Your task to perform on an android device: Do I have any events this weekend? Image 0: 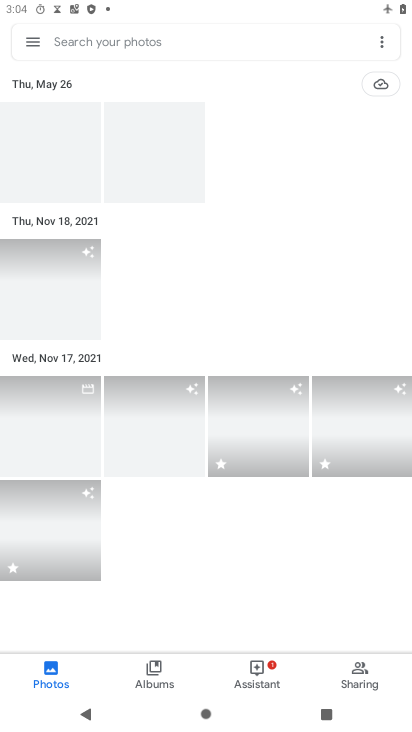
Step 0: press home button
Your task to perform on an android device: Do I have any events this weekend? Image 1: 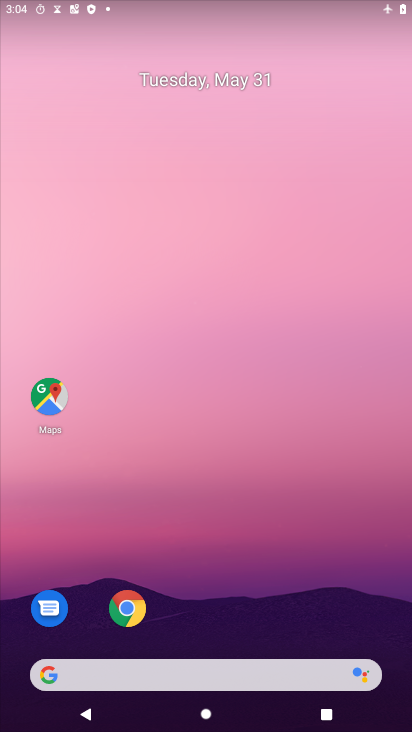
Step 1: drag from (240, 604) to (291, 183)
Your task to perform on an android device: Do I have any events this weekend? Image 2: 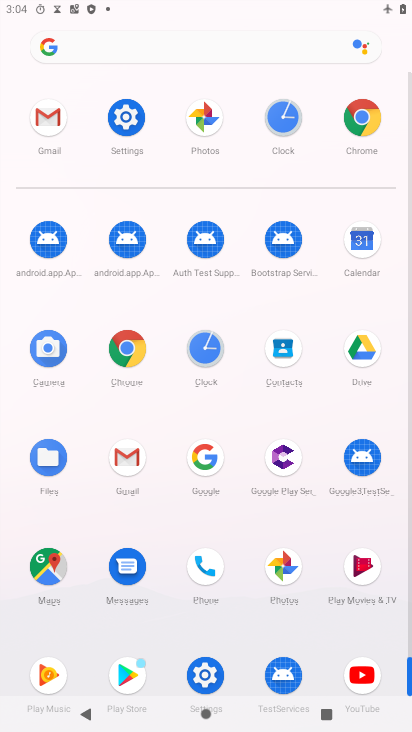
Step 2: click (368, 245)
Your task to perform on an android device: Do I have any events this weekend? Image 3: 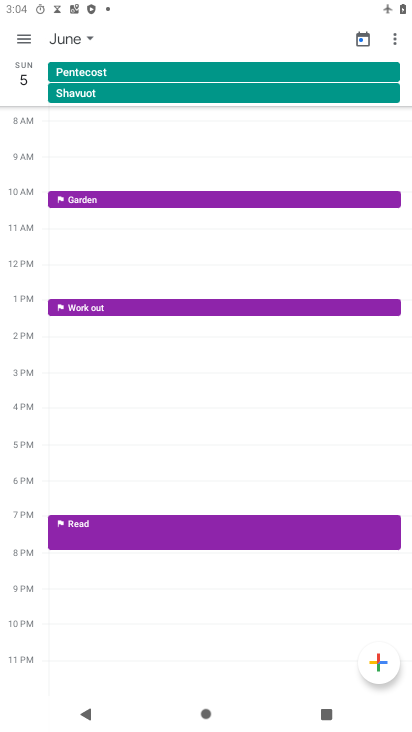
Step 3: drag from (131, 125) to (145, 244)
Your task to perform on an android device: Do I have any events this weekend? Image 4: 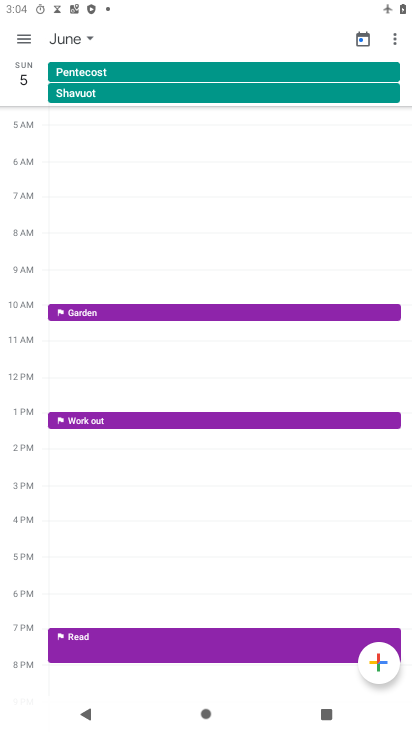
Step 4: drag from (171, 127) to (167, 628)
Your task to perform on an android device: Do I have any events this weekend? Image 5: 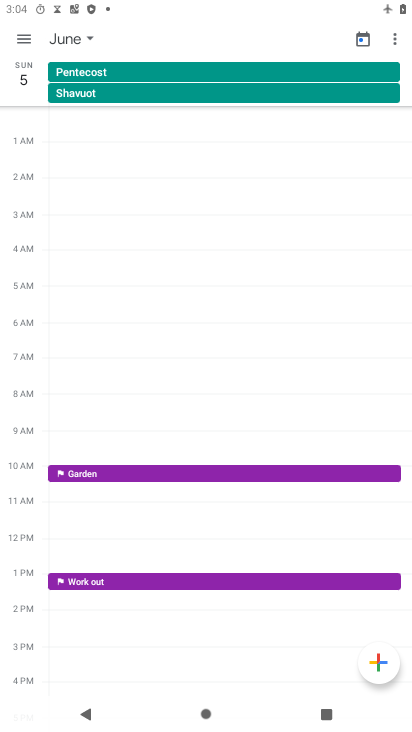
Step 5: drag from (210, 236) to (189, 718)
Your task to perform on an android device: Do I have any events this weekend? Image 6: 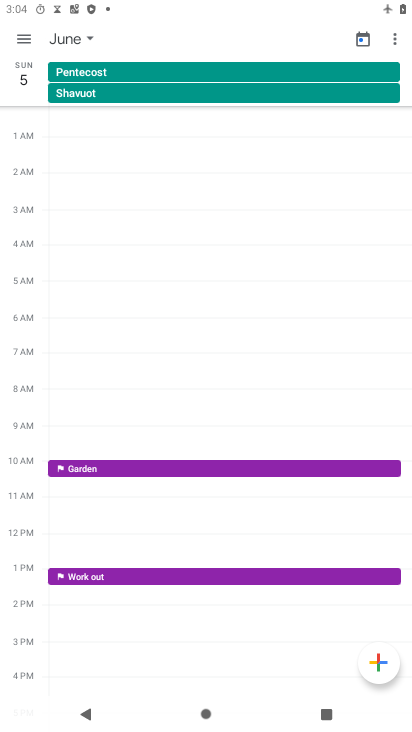
Step 6: drag from (195, 137) to (179, 488)
Your task to perform on an android device: Do I have any events this weekend? Image 7: 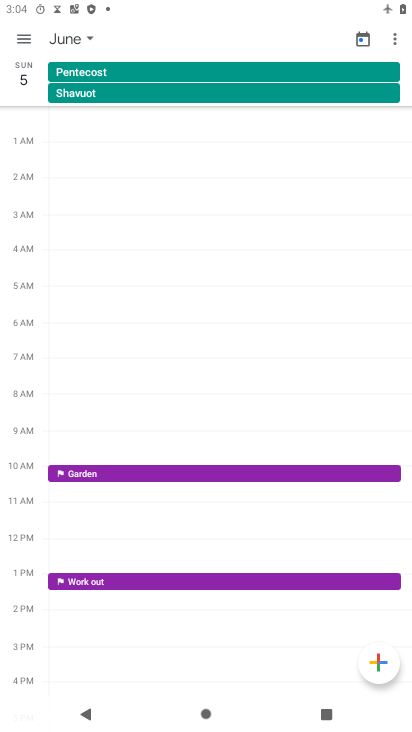
Step 7: click (20, 44)
Your task to perform on an android device: Do I have any events this weekend? Image 8: 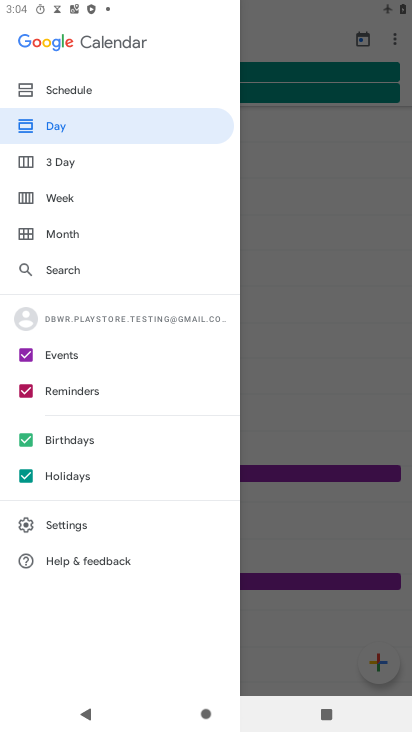
Step 8: click (77, 395)
Your task to perform on an android device: Do I have any events this weekend? Image 9: 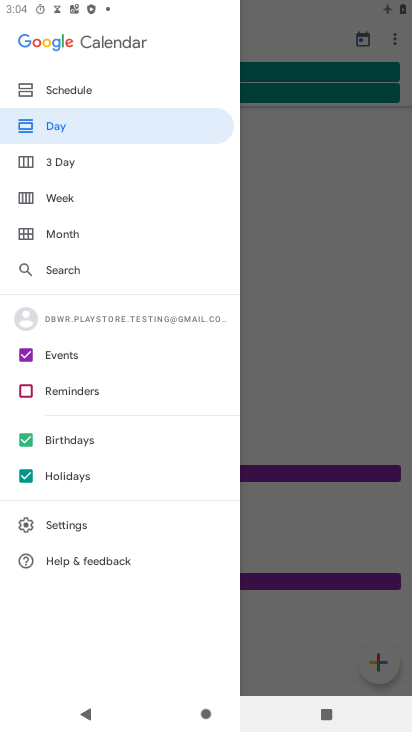
Step 9: click (70, 434)
Your task to perform on an android device: Do I have any events this weekend? Image 10: 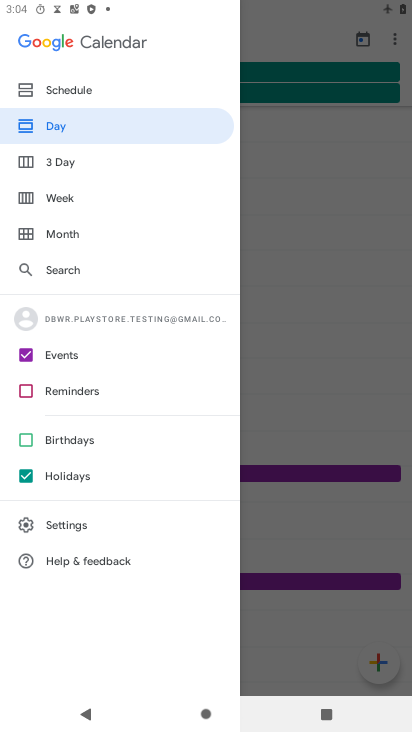
Step 10: click (72, 485)
Your task to perform on an android device: Do I have any events this weekend? Image 11: 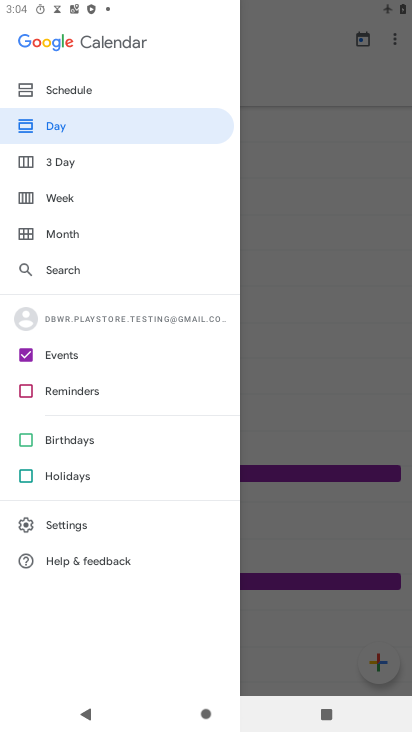
Step 11: click (68, 192)
Your task to perform on an android device: Do I have any events this weekend? Image 12: 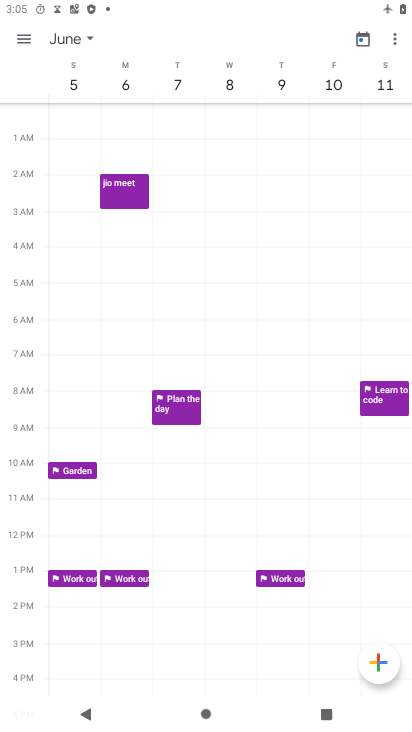
Step 12: task complete